Your task to perform on an android device: Open my contact list Image 0: 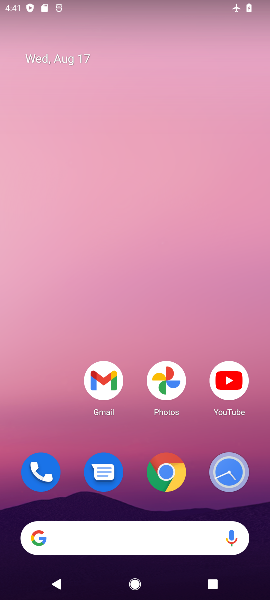
Step 0: drag from (142, 442) to (145, 118)
Your task to perform on an android device: Open my contact list Image 1: 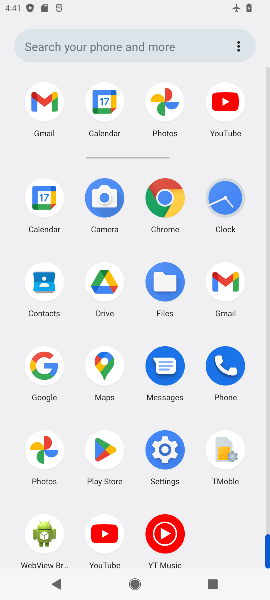
Step 1: click (52, 292)
Your task to perform on an android device: Open my contact list Image 2: 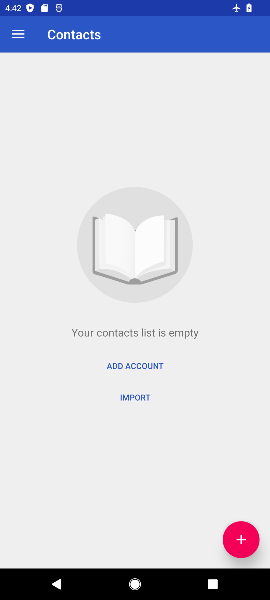
Step 2: task complete